Your task to perform on an android device: Go to display settings Image 0: 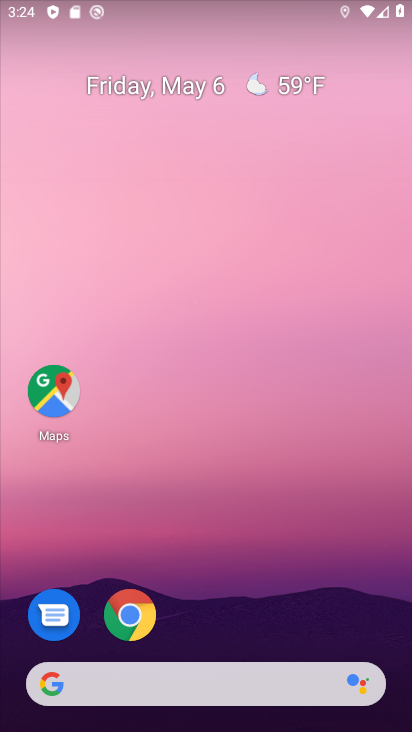
Step 0: drag from (331, 636) to (301, 3)
Your task to perform on an android device: Go to display settings Image 1: 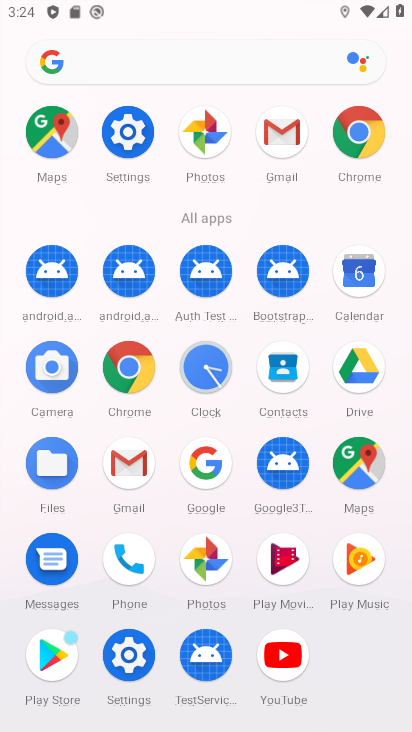
Step 1: click (130, 132)
Your task to perform on an android device: Go to display settings Image 2: 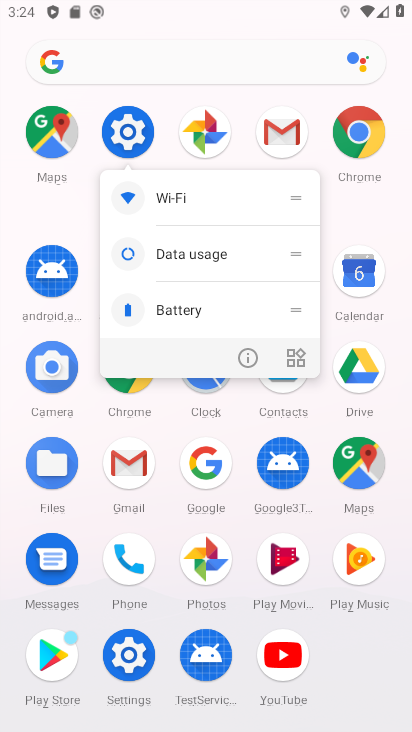
Step 2: click (130, 133)
Your task to perform on an android device: Go to display settings Image 3: 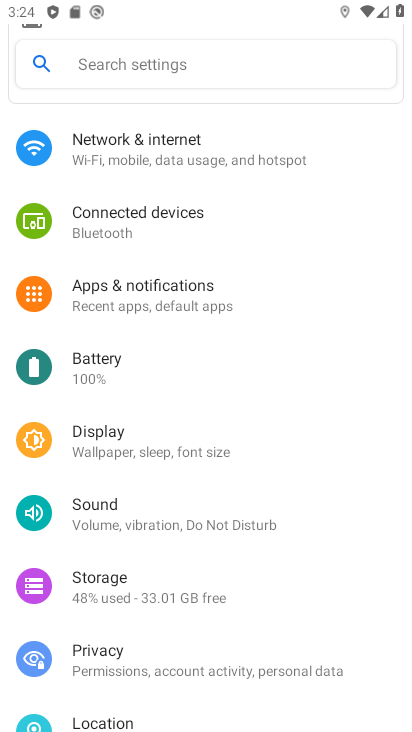
Step 3: click (89, 442)
Your task to perform on an android device: Go to display settings Image 4: 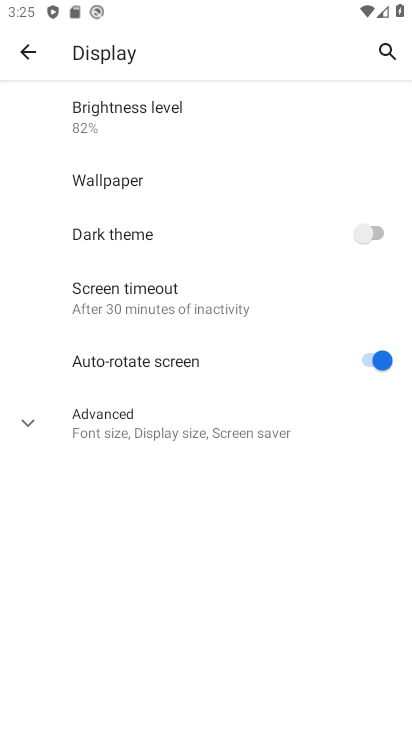
Step 4: task complete